Your task to perform on an android device: move a message to another label in the gmail app Image 0: 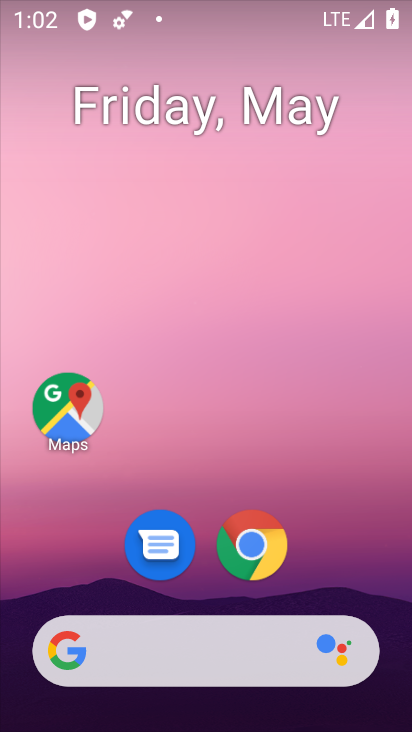
Step 0: drag from (361, 505) to (244, 0)
Your task to perform on an android device: move a message to another label in the gmail app Image 1: 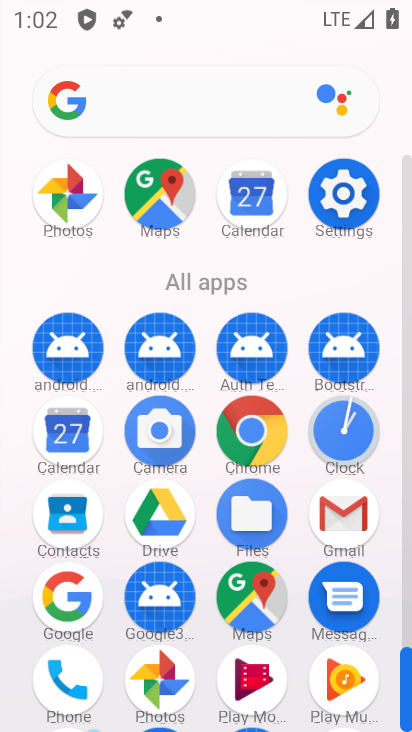
Step 1: click (347, 509)
Your task to perform on an android device: move a message to another label in the gmail app Image 2: 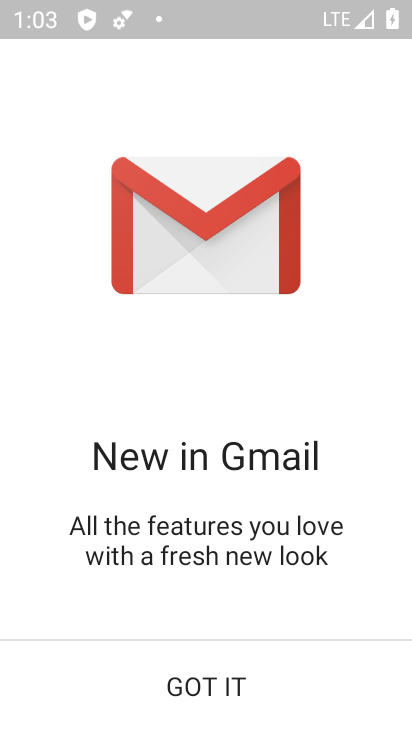
Step 2: click (222, 676)
Your task to perform on an android device: move a message to another label in the gmail app Image 3: 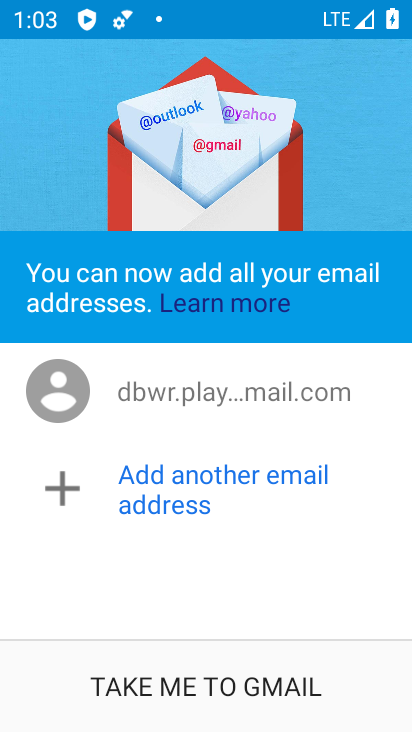
Step 3: click (216, 691)
Your task to perform on an android device: move a message to another label in the gmail app Image 4: 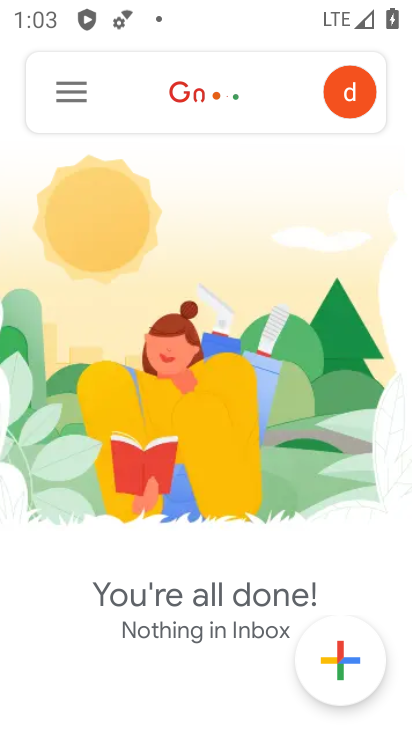
Step 4: click (65, 92)
Your task to perform on an android device: move a message to another label in the gmail app Image 5: 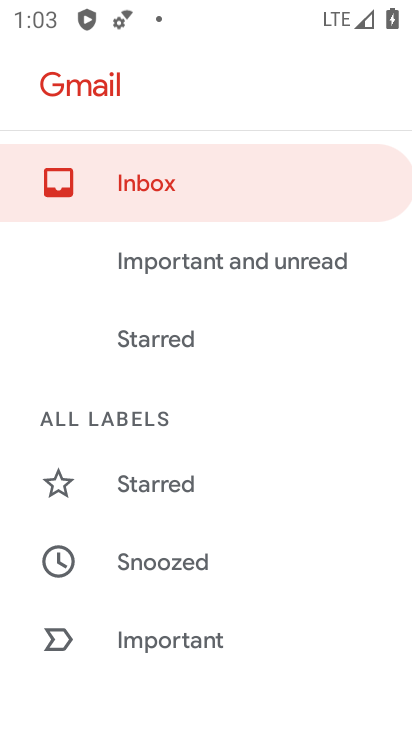
Step 5: drag from (207, 645) to (221, 125)
Your task to perform on an android device: move a message to another label in the gmail app Image 6: 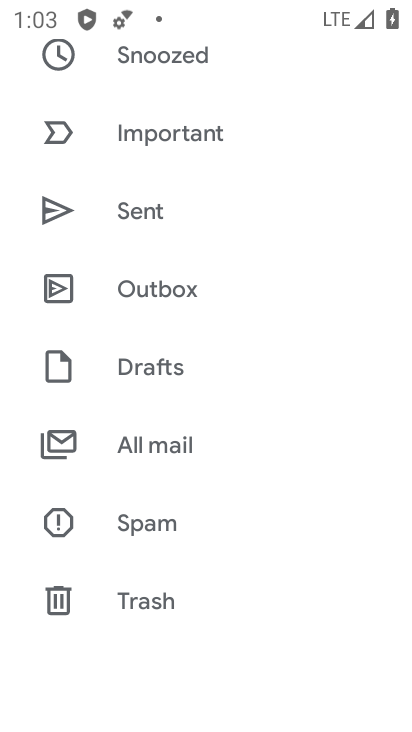
Step 6: click (187, 469)
Your task to perform on an android device: move a message to another label in the gmail app Image 7: 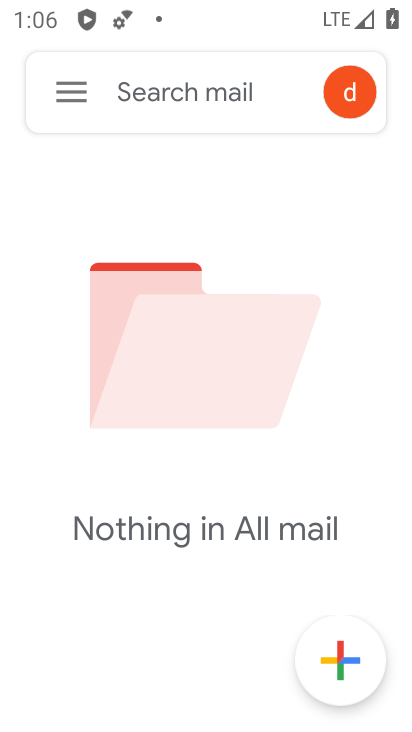
Step 7: task complete